Your task to perform on an android device: Go to internet settings Image 0: 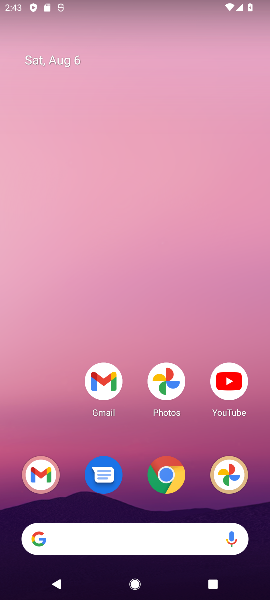
Step 0: drag from (31, 577) to (231, 302)
Your task to perform on an android device: Go to internet settings Image 1: 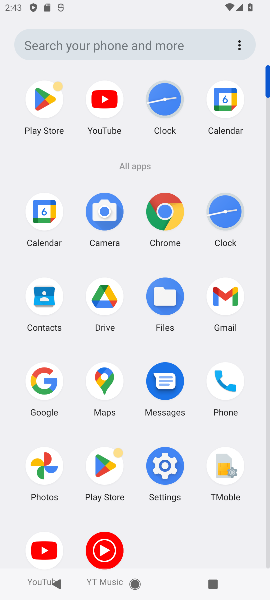
Step 1: click (175, 472)
Your task to perform on an android device: Go to internet settings Image 2: 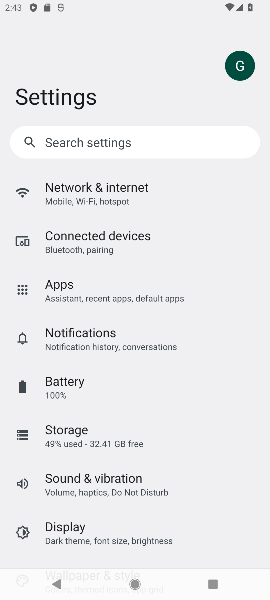
Step 2: click (101, 188)
Your task to perform on an android device: Go to internet settings Image 3: 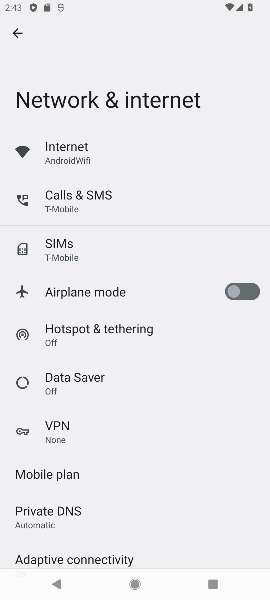
Step 3: task complete